Your task to perform on an android device: toggle translation in the chrome app Image 0: 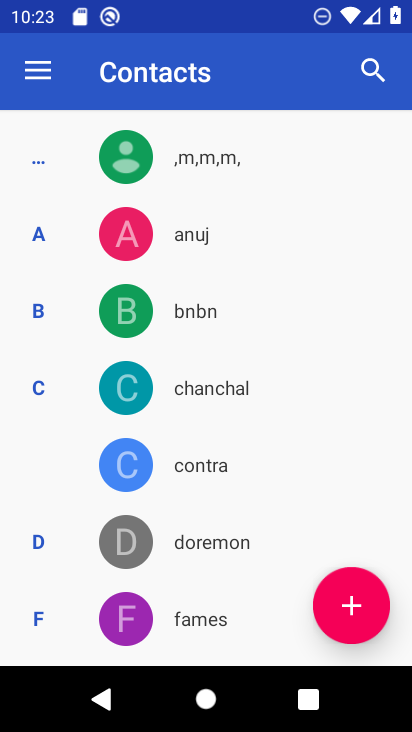
Step 0: press home button
Your task to perform on an android device: toggle translation in the chrome app Image 1: 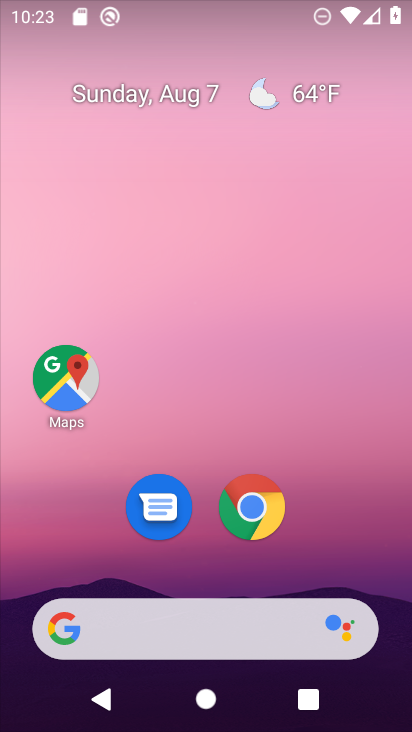
Step 1: drag from (335, 534) to (285, 70)
Your task to perform on an android device: toggle translation in the chrome app Image 2: 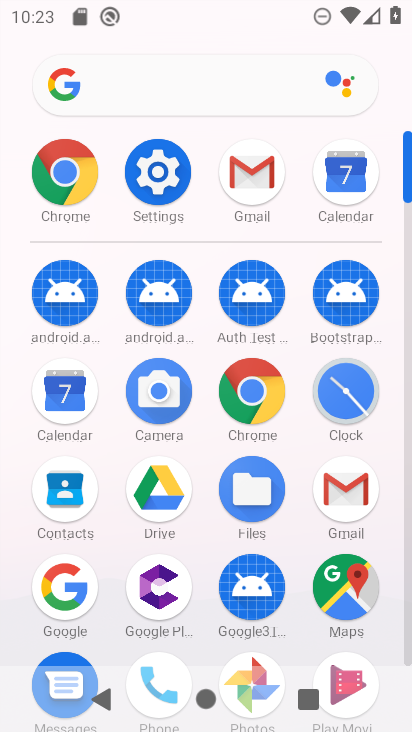
Step 2: click (249, 394)
Your task to perform on an android device: toggle translation in the chrome app Image 3: 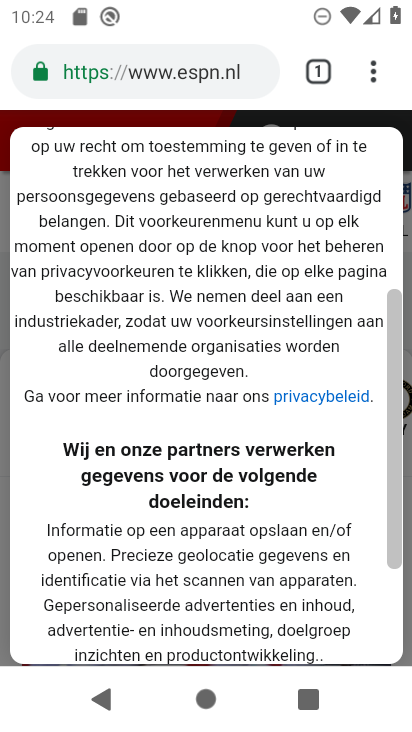
Step 3: drag from (379, 65) to (168, 506)
Your task to perform on an android device: toggle translation in the chrome app Image 4: 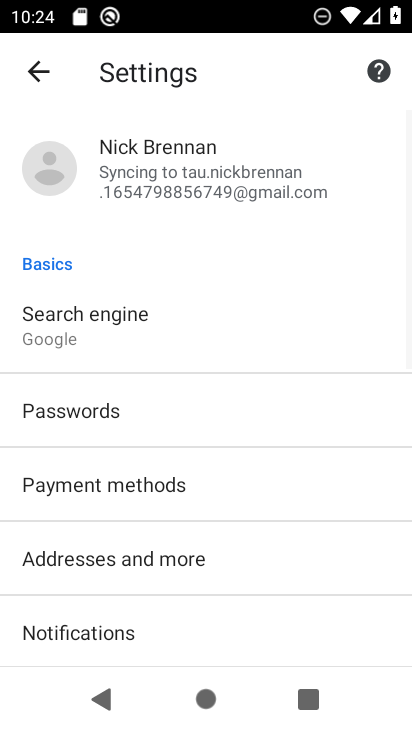
Step 4: drag from (312, 608) to (326, 80)
Your task to perform on an android device: toggle translation in the chrome app Image 5: 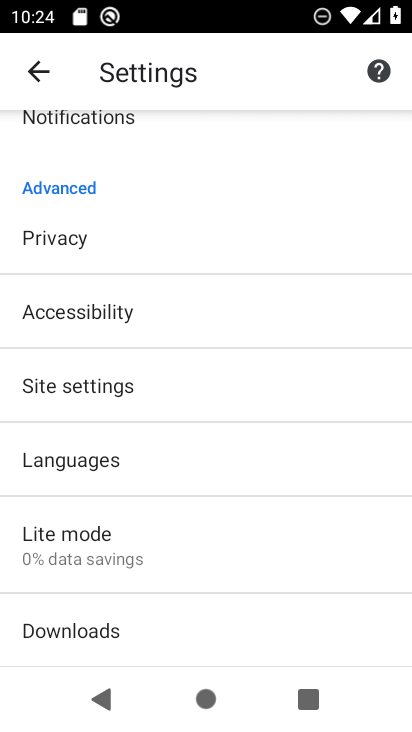
Step 5: click (95, 465)
Your task to perform on an android device: toggle translation in the chrome app Image 6: 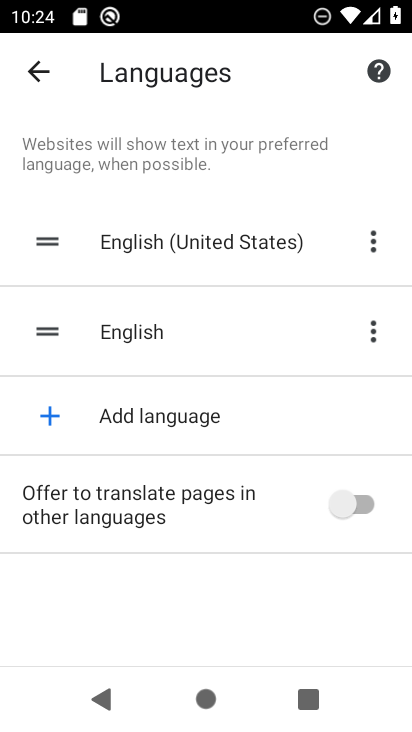
Step 6: click (345, 497)
Your task to perform on an android device: toggle translation in the chrome app Image 7: 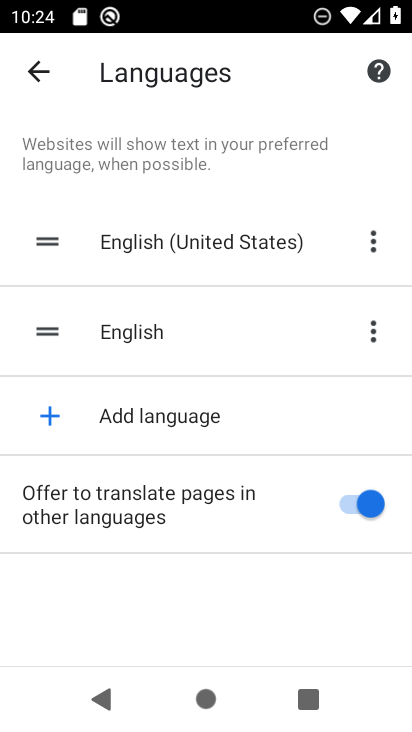
Step 7: task complete